Your task to perform on an android device: toggle sleep mode Image 0: 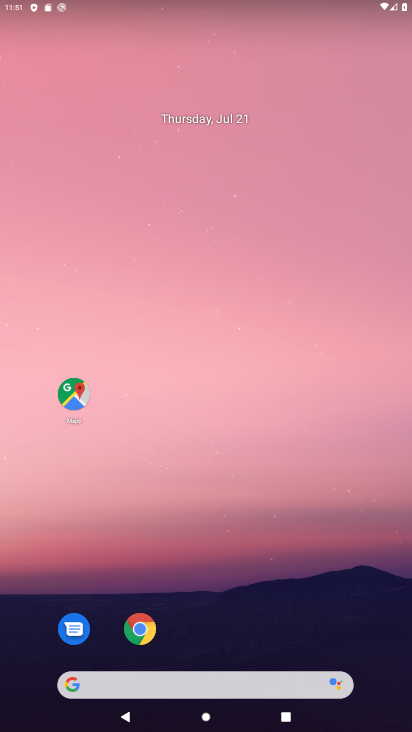
Step 0: drag from (135, 696) to (345, 2)
Your task to perform on an android device: toggle sleep mode Image 1: 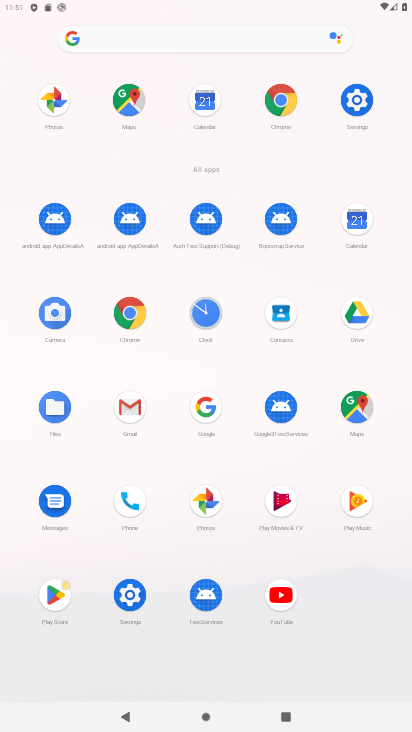
Step 1: click (359, 94)
Your task to perform on an android device: toggle sleep mode Image 2: 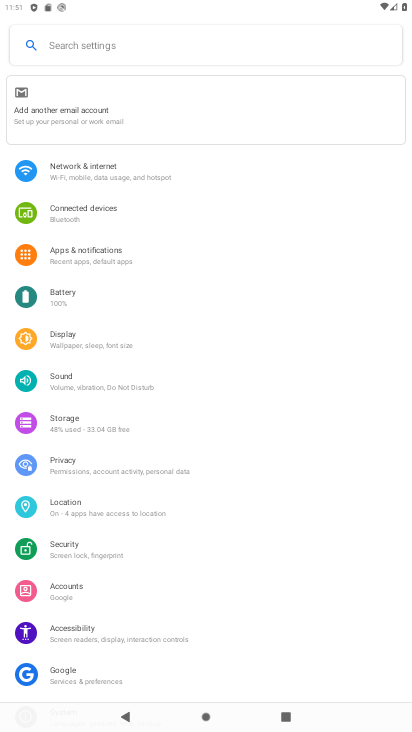
Step 2: click (86, 343)
Your task to perform on an android device: toggle sleep mode Image 3: 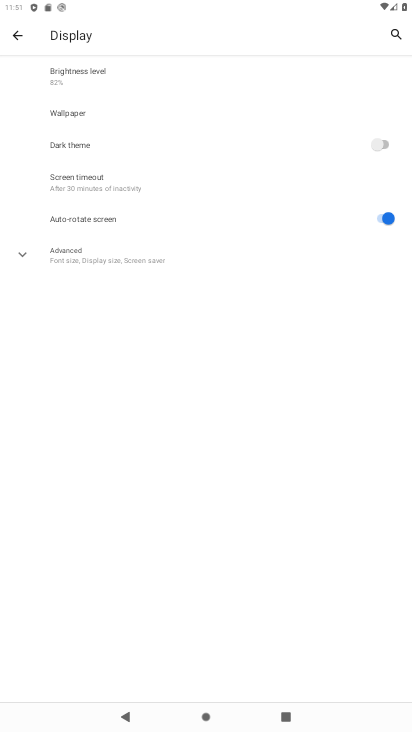
Step 3: task complete